Your task to perform on an android device: Open eBay Image 0: 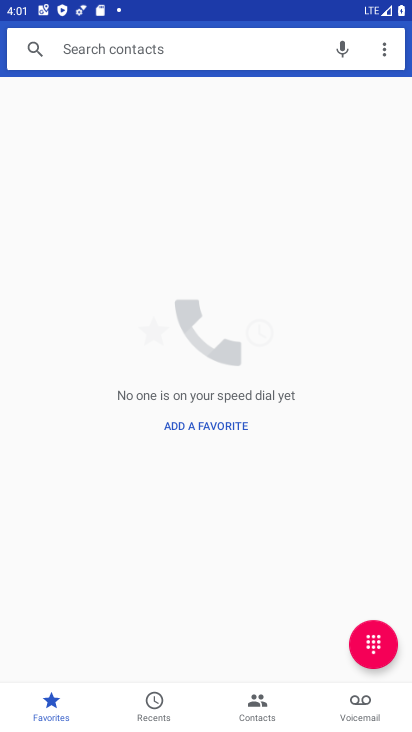
Step 0: press back button
Your task to perform on an android device: Open eBay Image 1: 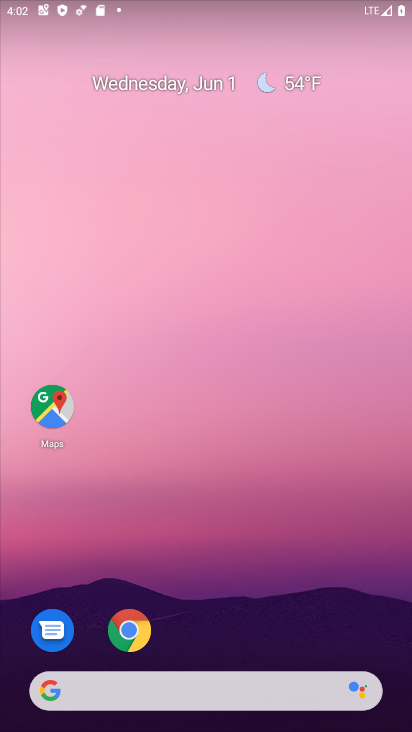
Step 1: drag from (294, 438) to (239, 51)
Your task to perform on an android device: Open eBay Image 2: 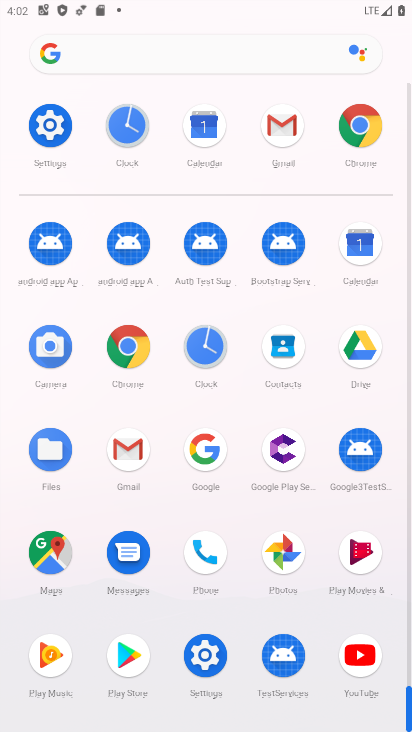
Step 2: drag from (22, 588) to (17, 222)
Your task to perform on an android device: Open eBay Image 3: 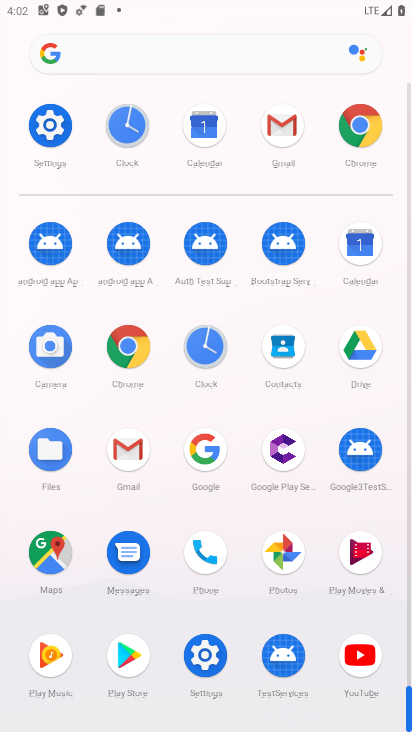
Step 3: click (133, 342)
Your task to perform on an android device: Open eBay Image 4: 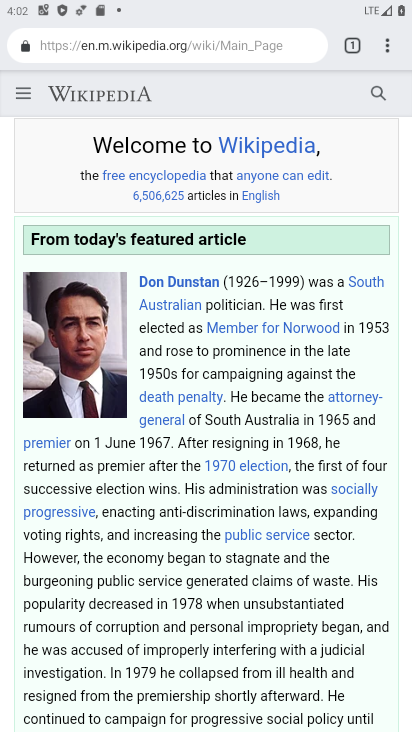
Step 4: click (189, 38)
Your task to perform on an android device: Open eBay Image 5: 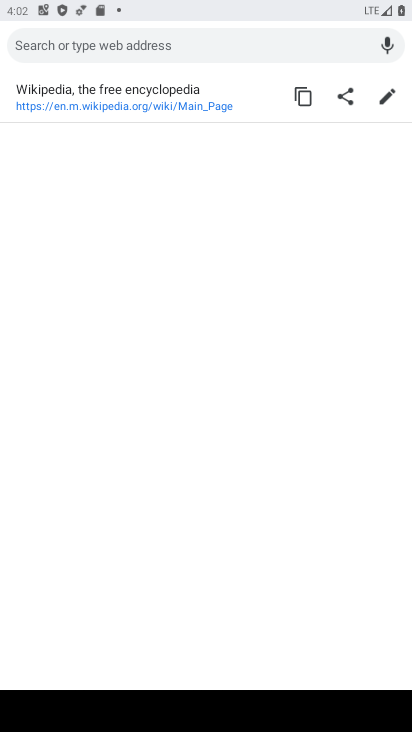
Step 5: type "eBay"
Your task to perform on an android device: Open eBay Image 6: 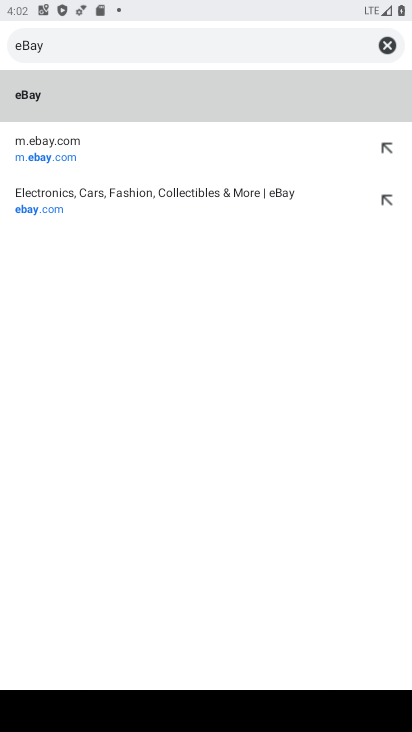
Step 6: click (130, 145)
Your task to perform on an android device: Open eBay Image 7: 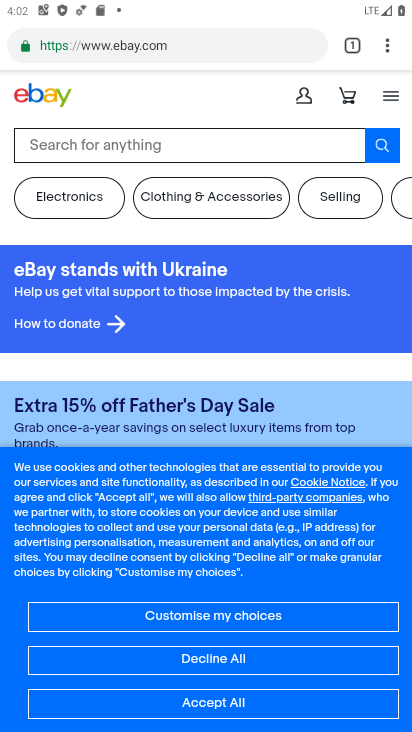
Step 7: task complete